Your task to perform on an android device: open wifi settings Image 0: 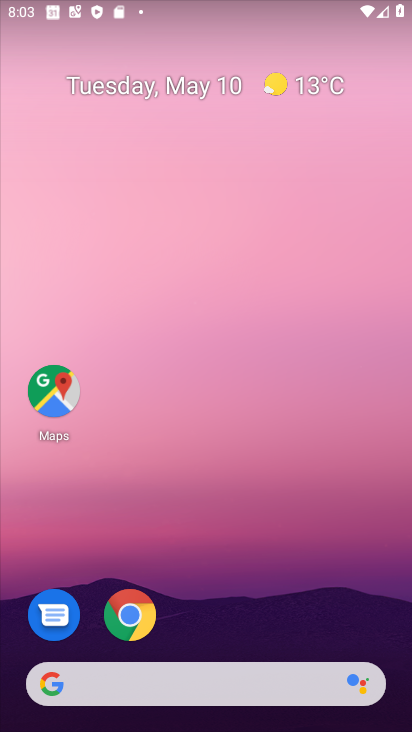
Step 0: drag from (256, 520) to (195, 57)
Your task to perform on an android device: open wifi settings Image 1: 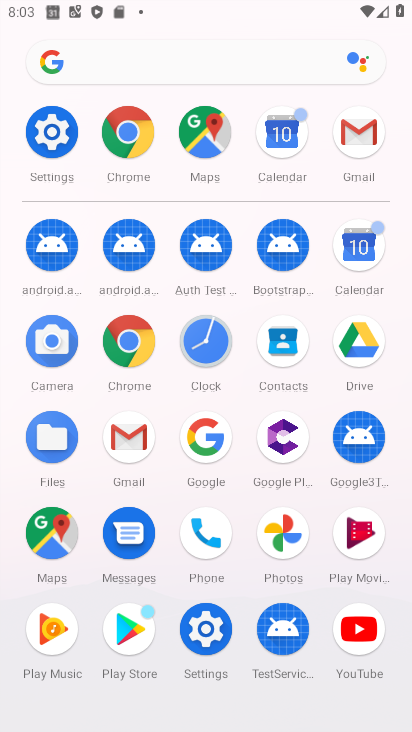
Step 1: click (54, 135)
Your task to perform on an android device: open wifi settings Image 2: 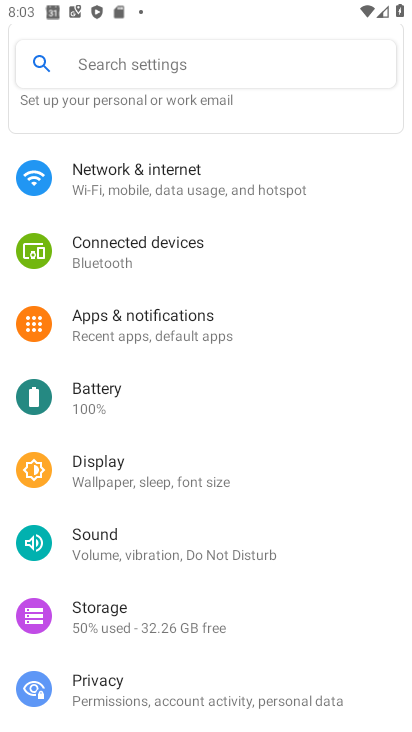
Step 2: click (145, 187)
Your task to perform on an android device: open wifi settings Image 3: 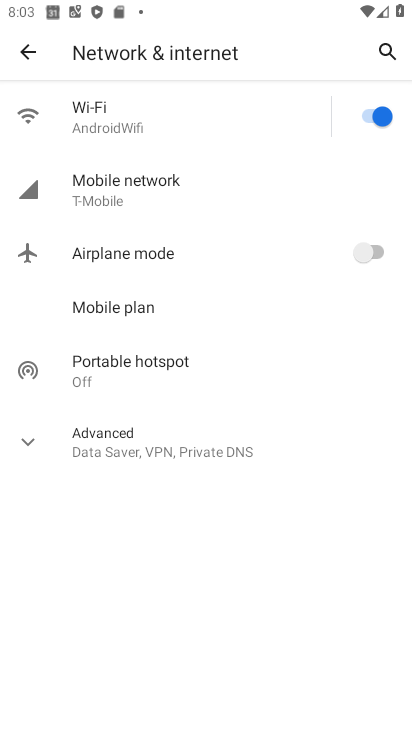
Step 3: click (94, 119)
Your task to perform on an android device: open wifi settings Image 4: 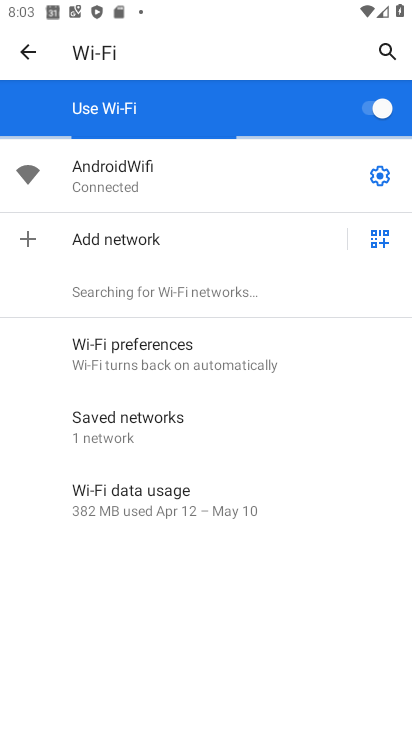
Step 4: task complete